Your task to perform on an android device: Open Android settings Image 0: 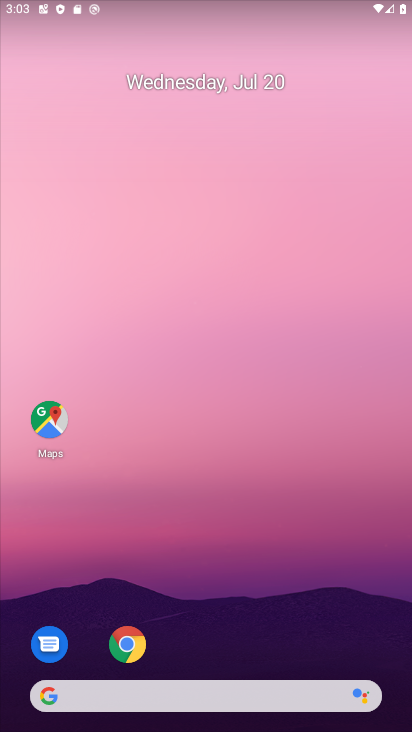
Step 0: drag from (261, 674) to (240, 383)
Your task to perform on an android device: Open Android settings Image 1: 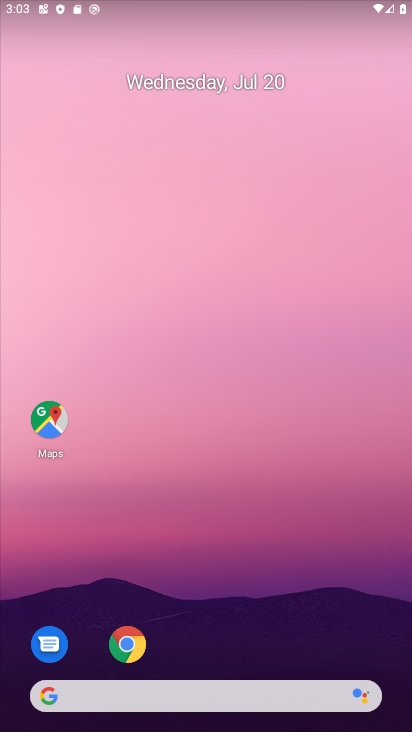
Step 1: drag from (238, 532) to (254, 394)
Your task to perform on an android device: Open Android settings Image 2: 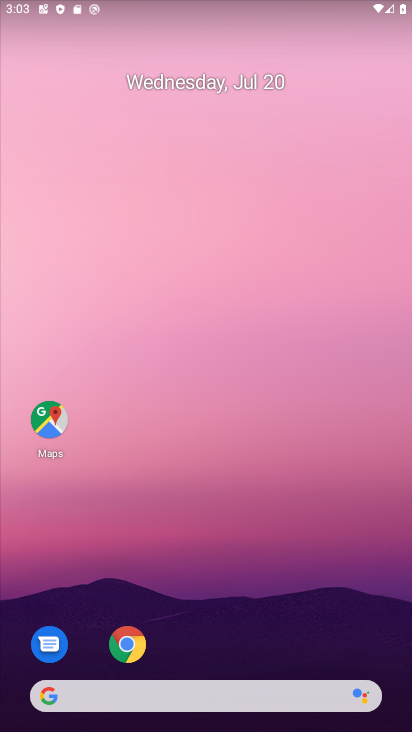
Step 2: drag from (155, 595) to (218, 189)
Your task to perform on an android device: Open Android settings Image 3: 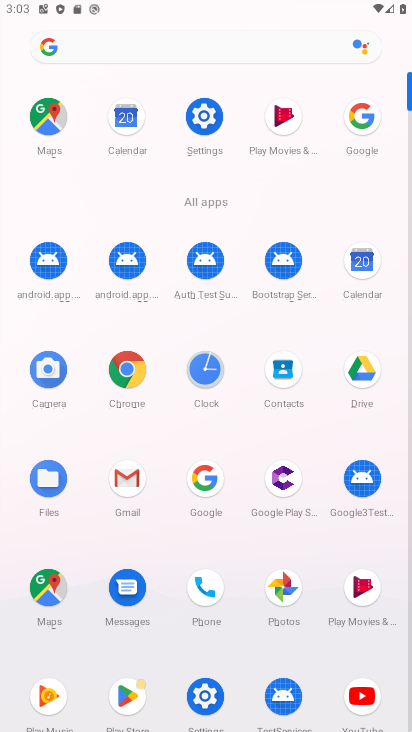
Step 3: click (200, 110)
Your task to perform on an android device: Open Android settings Image 4: 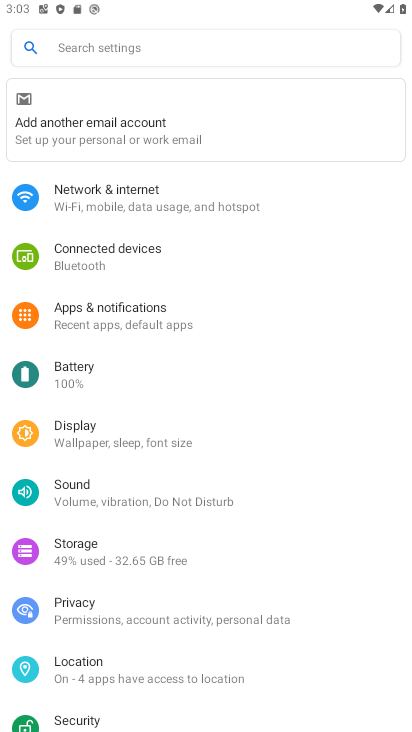
Step 4: task complete